Your task to perform on an android device: Go to privacy settings Image 0: 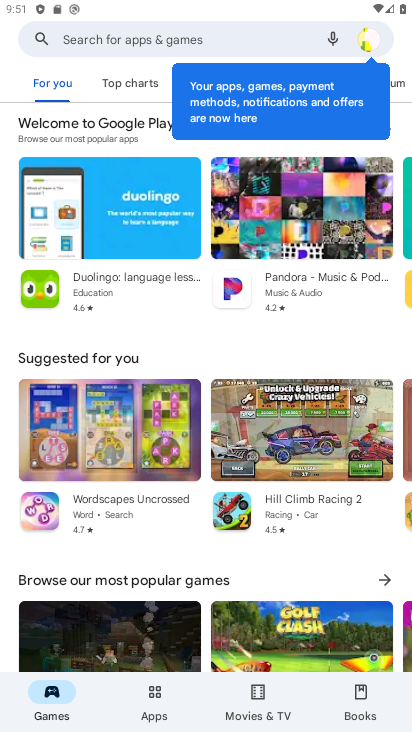
Step 0: press home button
Your task to perform on an android device: Go to privacy settings Image 1: 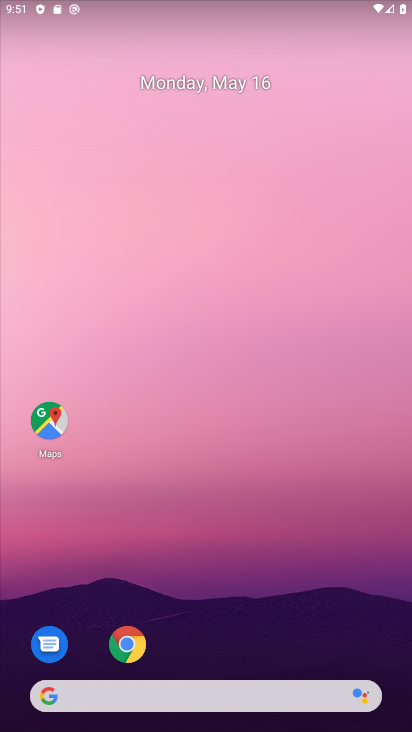
Step 1: drag from (41, 679) to (303, 82)
Your task to perform on an android device: Go to privacy settings Image 2: 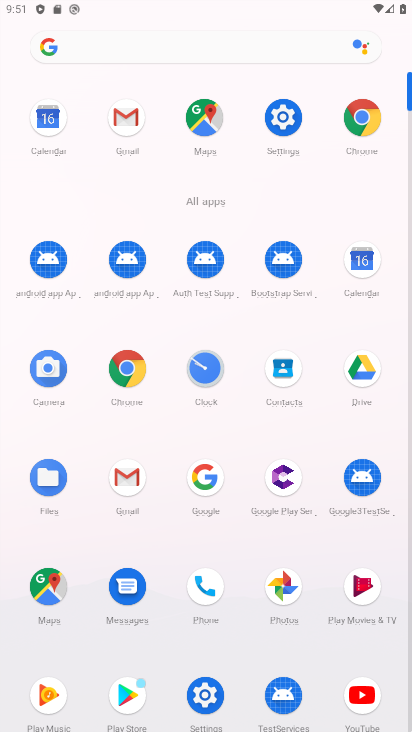
Step 2: click (283, 124)
Your task to perform on an android device: Go to privacy settings Image 3: 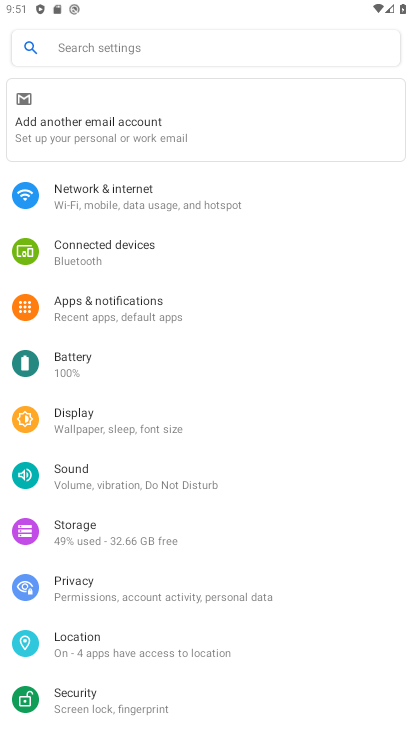
Step 3: click (97, 570)
Your task to perform on an android device: Go to privacy settings Image 4: 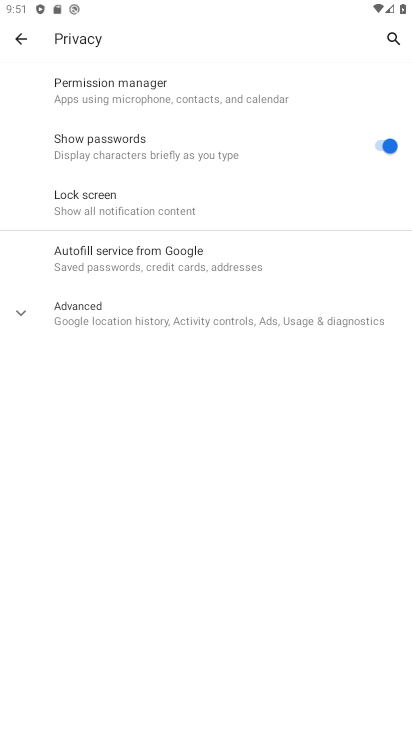
Step 4: task complete